Your task to perform on an android device: Go to ESPN.com Image 0: 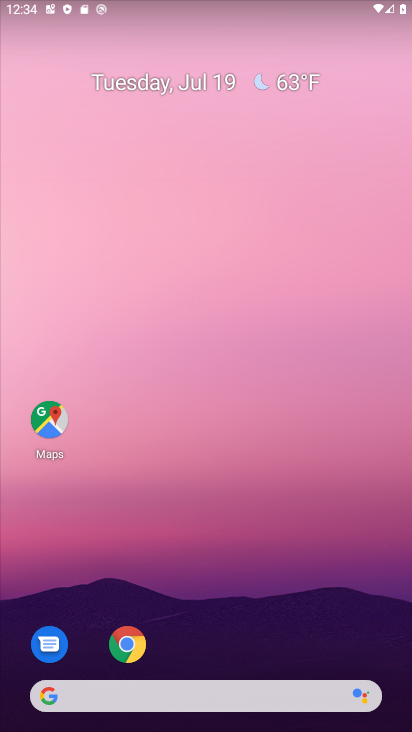
Step 0: click (126, 649)
Your task to perform on an android device: Go to ESPN.com Image 1: 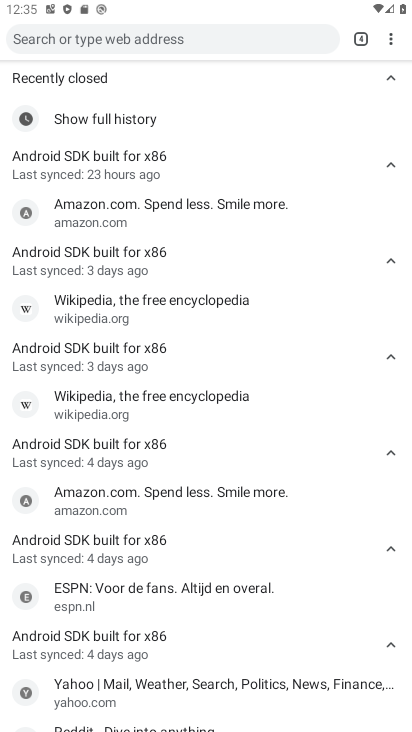
Step 1: click (389, 44)
Your task to perform on an android device: Go to ESPN.com Image 2: 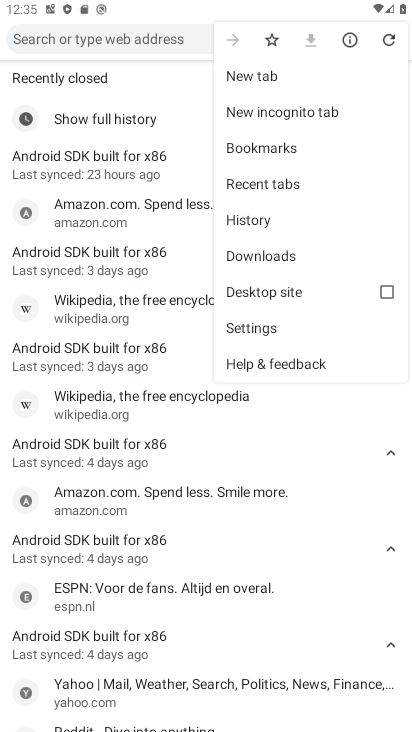
Step 2: click (271, 75)
Your task to perform on an android device: Go to ESPN.com Image 3: 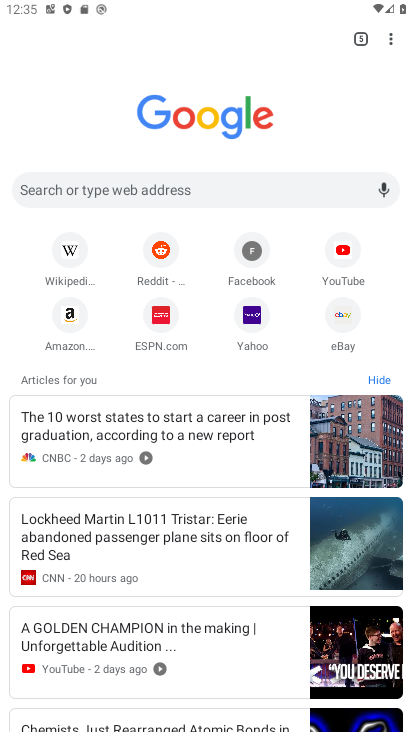
Step 3: click (155, 309)
Your task to perform on an android device: Go to ESPN.com Image 4: 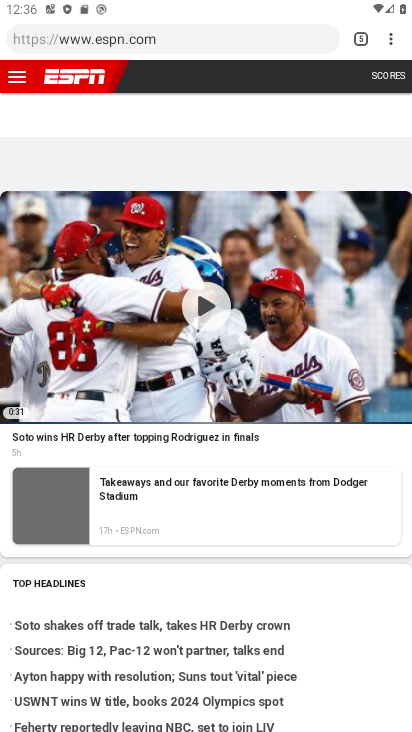
Step 4: task complete